Your task to perform on an android device: Open calendar and show me the first week of next month Image 0: 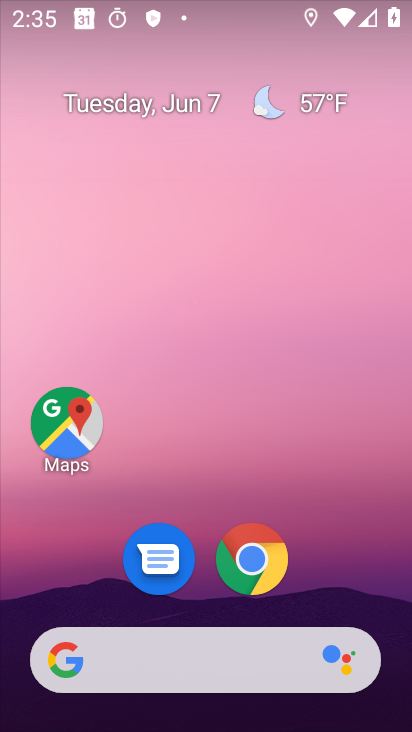
Step 0: drag from (326, 596) to (2, 275)
Your task to perform on an android device: Open calendar and show me the first week of next month Image 1: 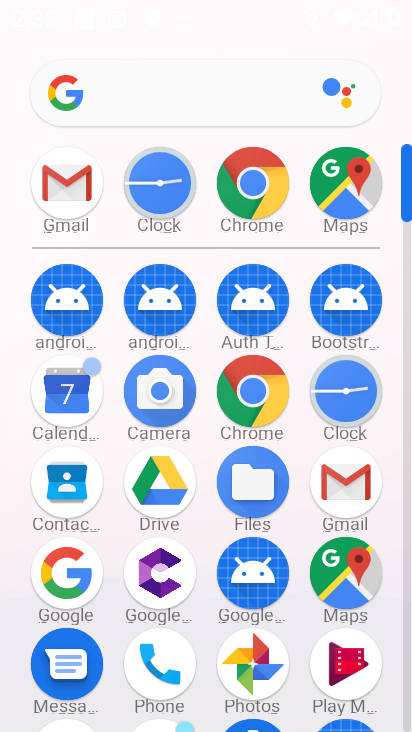
Step 1: drag from (15, 457) to (15, 143)
Your task to perform on an android device: Open calendar and show me the first week of next month Image 2: 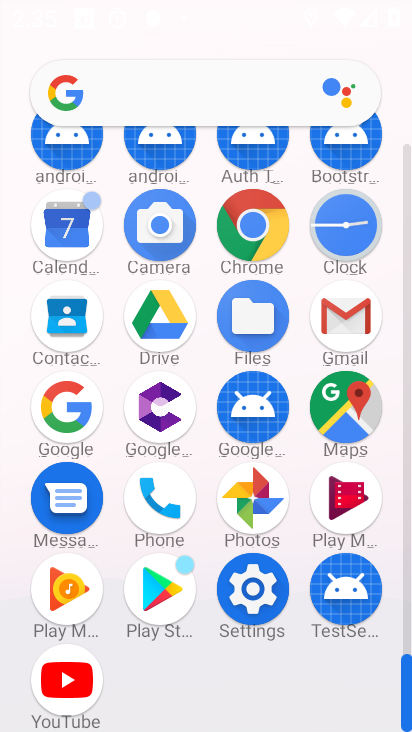
Step 2: drag from (27, 194) to (9, 477)
Your task to perform on an android device: Open calendar and show me the first week of next month Image 3: 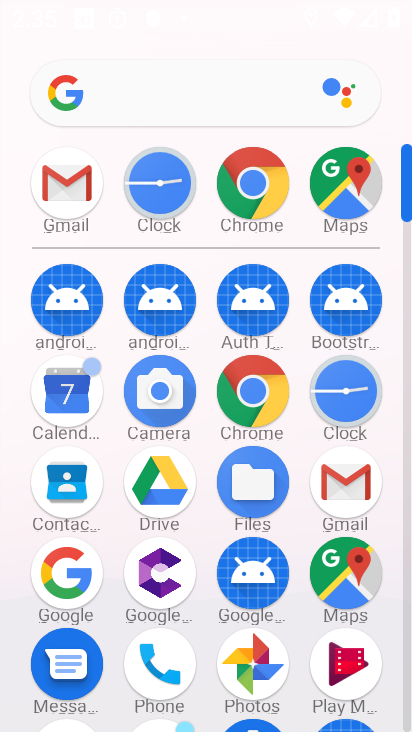
Step 3: click (65, 386)
Your task to perform on an android device: Open calendar and show me the first week of next month Image 4: 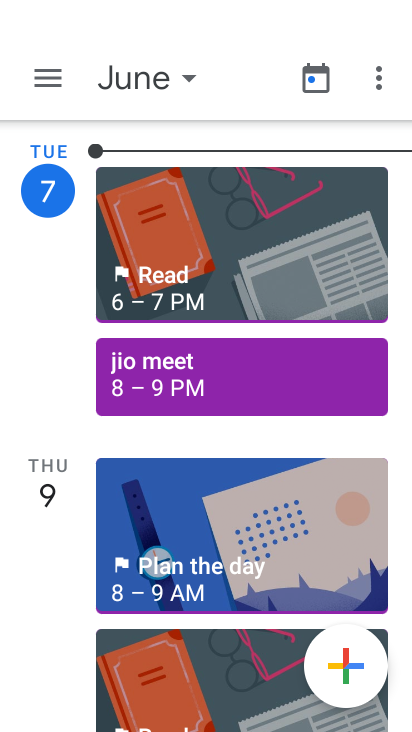
Step 4: click (153, 80)
Your task to perform on an android device: Open calendar and show me the first week of next month Image 5: 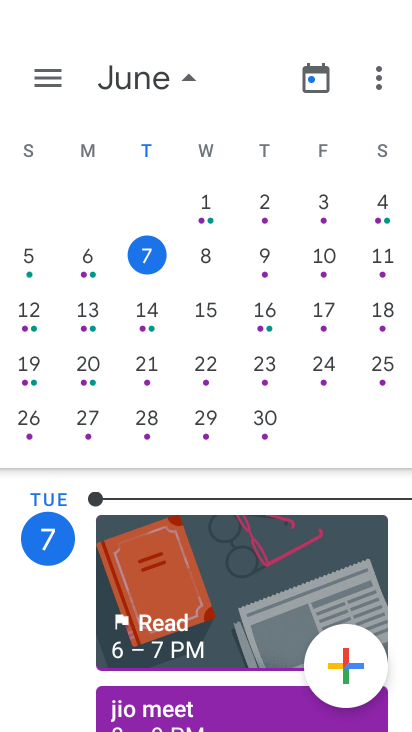
Step 5: drag from (356, 327) to (5, 280)
Your task to perform on an android device: Open calendar and show me the first week of next month Image 6: 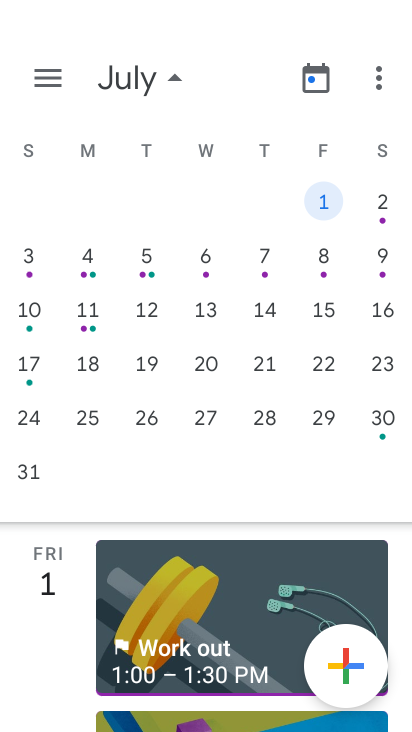
Step 6: click (34, 249)
Your task to perform on an android device: Open calendar and show me the first week of next month Image 7: 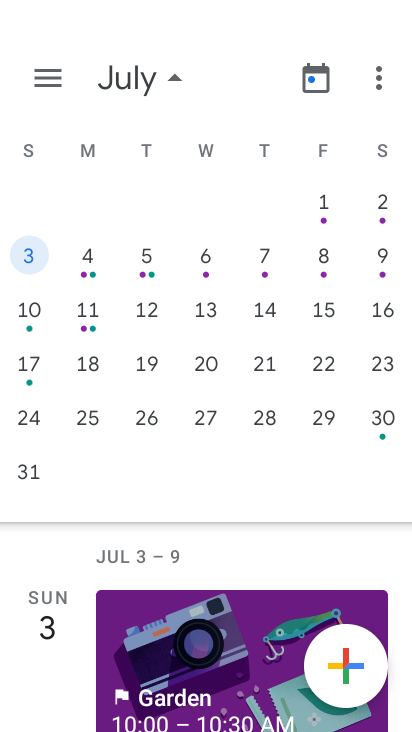
Step 7: click (34, 76)
Your task to perform on an android device: Open calendar and show me the first week of next month Image 8: 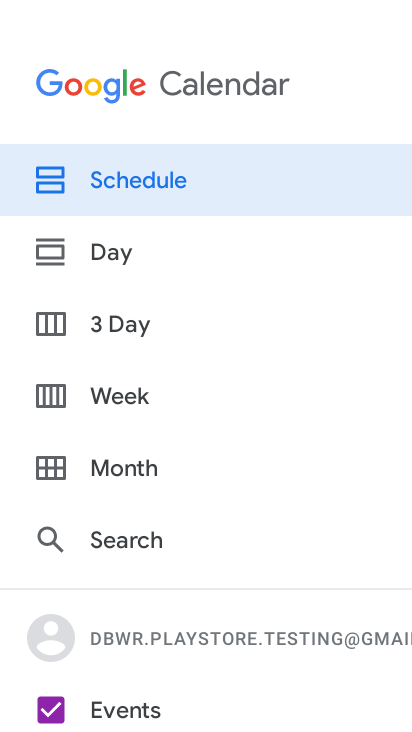
Step 8: click (130, 386)
Your task to perform on an android device: Open calendar and show me the first week of next month Image 9: 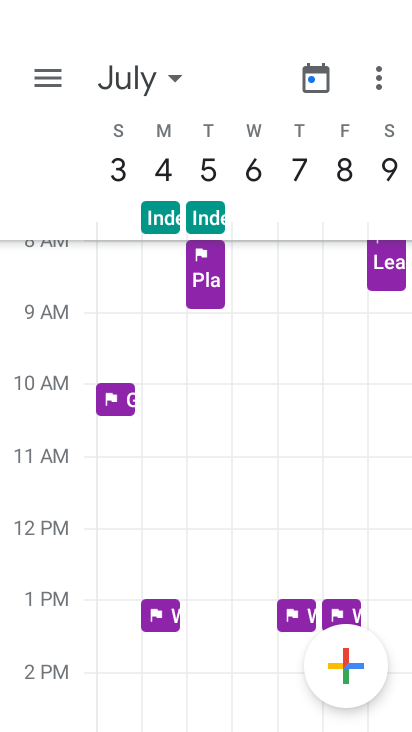
Step 9: task complete